Your task to perform on an android device: Open Youtube and go to "Your channel" Image 0: 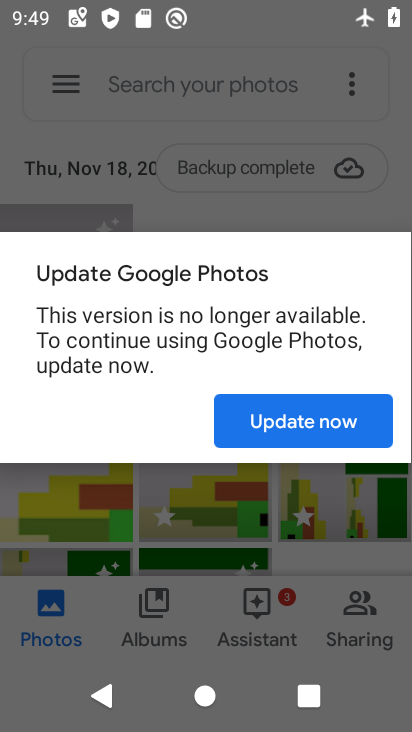
Step 0: press home button
Your task to perform on an android device: Open Youtube and go to "Your channel" Image 1: 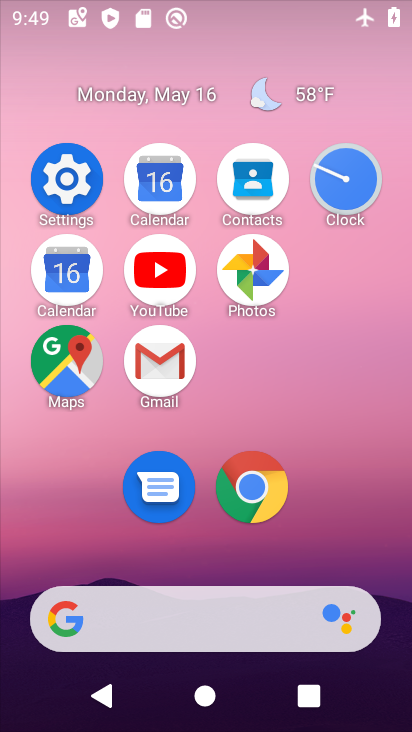
Step 1: click (162, 278)
Your task to perform on an android device: Open Youtube and go to "Your channel" Image 2: 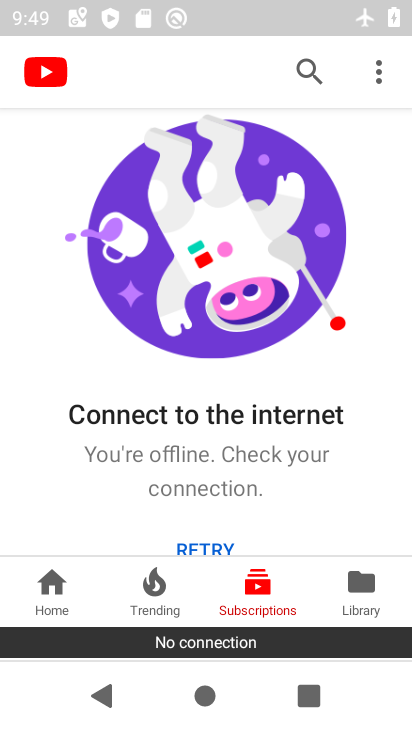
Step 2: task complete